Your task to perform on an android device: turn on javascript in the chrome app Image 0: 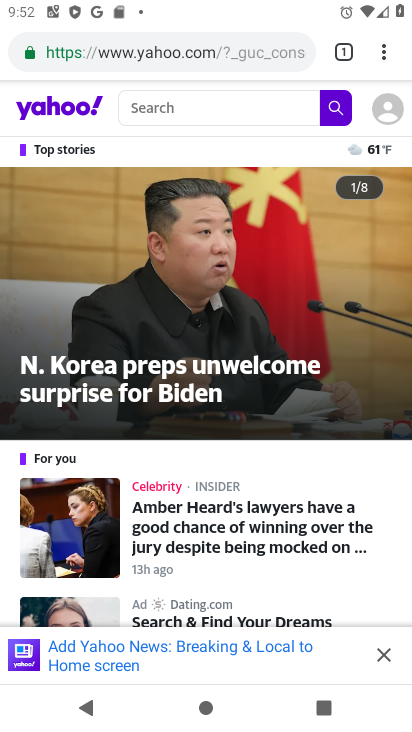
Step 0: press home button
Your task to perform on an android device: turn on javascript in the chrome app Image 1: 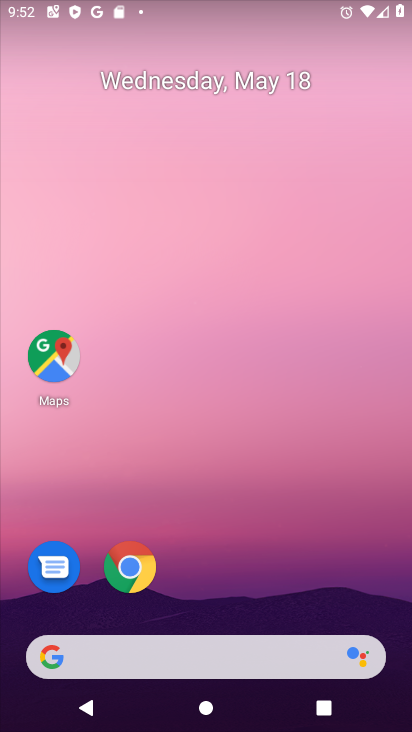
Step 1: click (134, 562)
Your task to perform on an android device: turn on javascript in the chrome app Image 2: 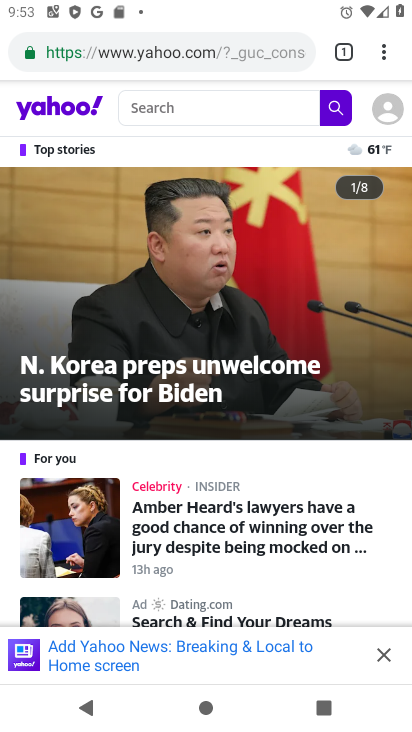
Step 2: drag from (382, 49) to (220, 601)
Your task to perform on an android device: turn on javascript in the chrome app Image 3: 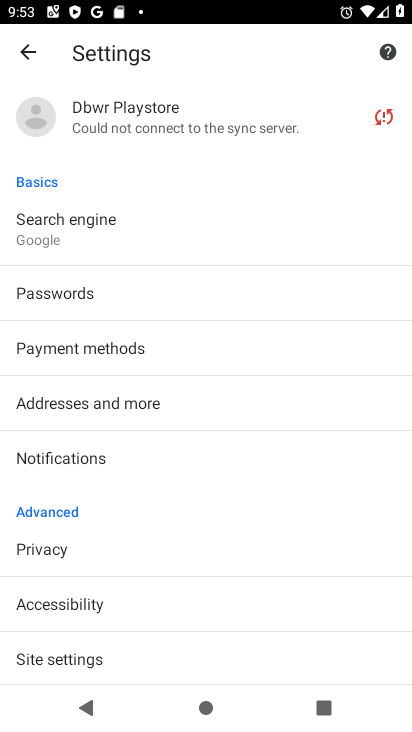
Step 3: click (104, 648)
Your task to perform on an android device: turn on javascript in the chrome app Image 4: 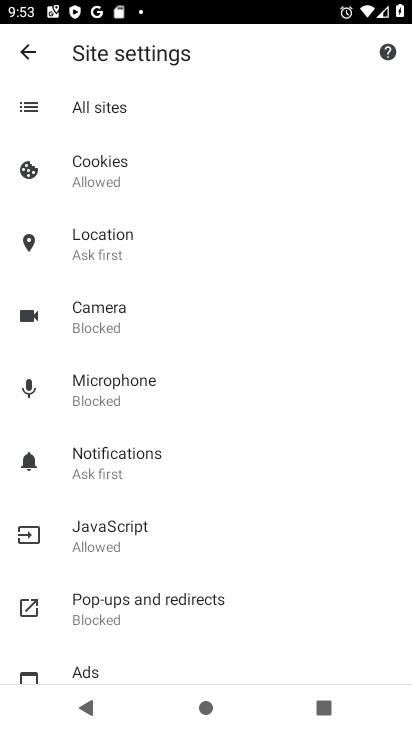
Step 4: click (116, 537)
Your task to perform on an android device: turn on javascript in the chrome app Image 5: 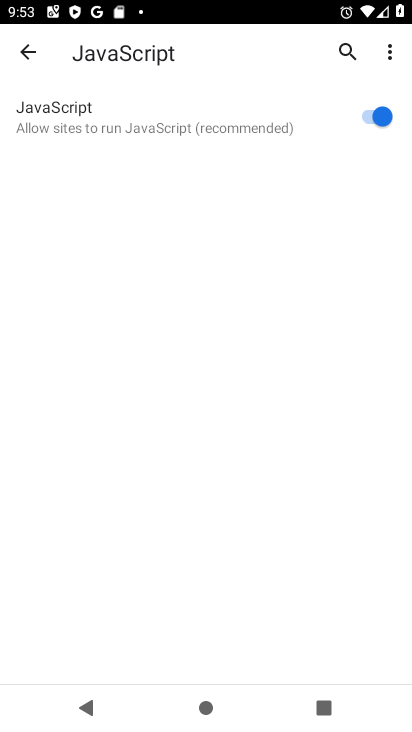
Step 5: task complete